Your task to perform on an android device: Go to Yahoo.com Image 0: 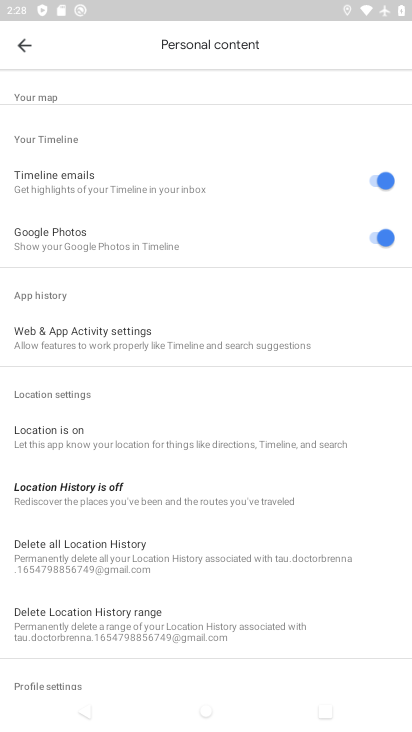
Step 0: press home button
Your task to perform on an android device: Go to Yahoo.com Image 1: 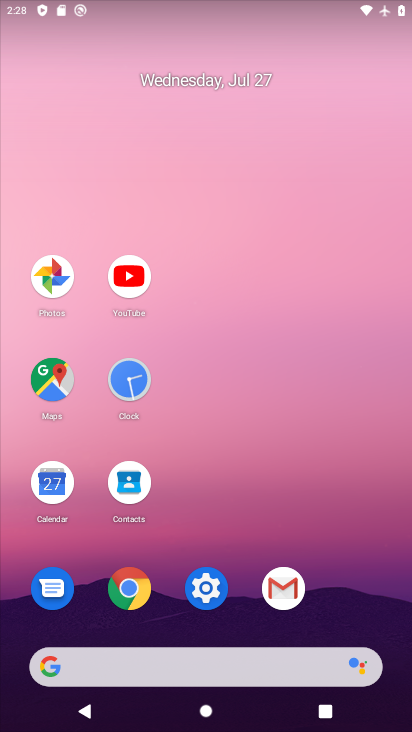
Step 1: click (129, 590)
Your task to perform on an android device: Go to Yahoo.com Image 2: 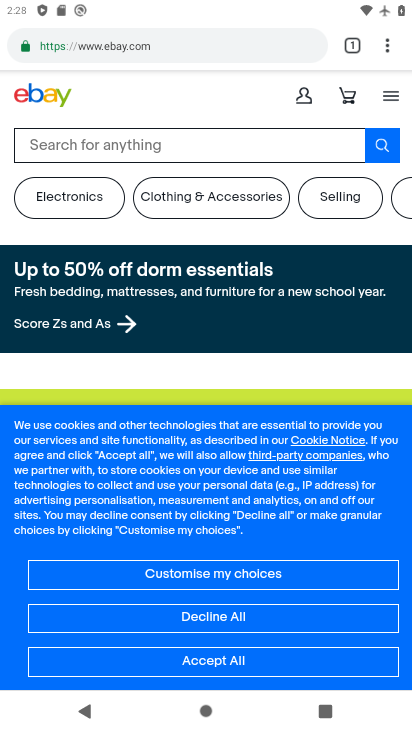
Step 2: click (387, 50)
Your task to perform on an android device: Go to Yahoo.com Image 3: 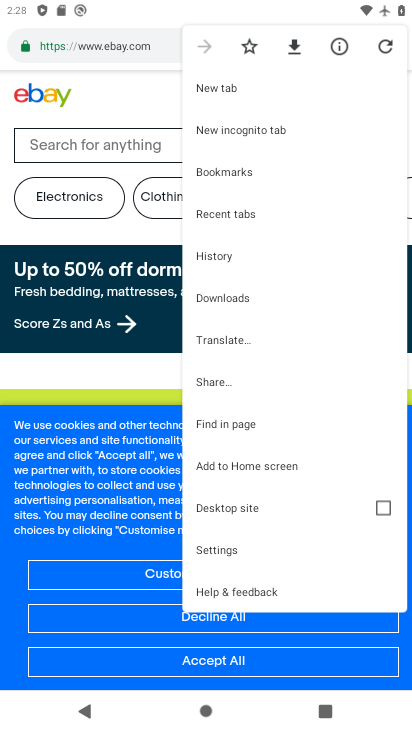
Step 3: click (237, 80)
Your task to perform on an android device: Go to Yahoo.com Image 4: 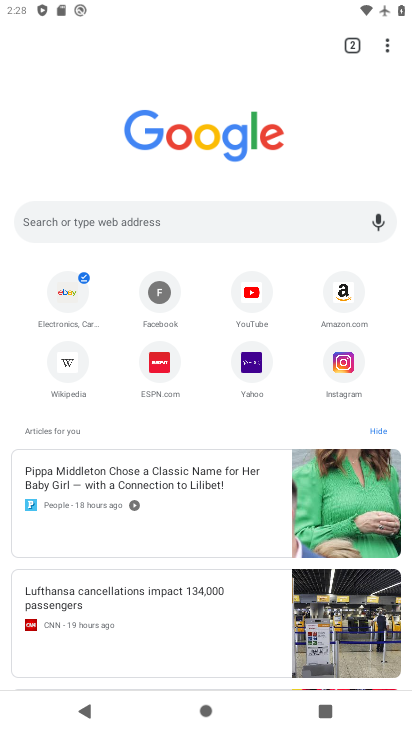
Step 4: click (258, 367)
Your task to perform on an android device: Go to Yahoo.com Image 5: 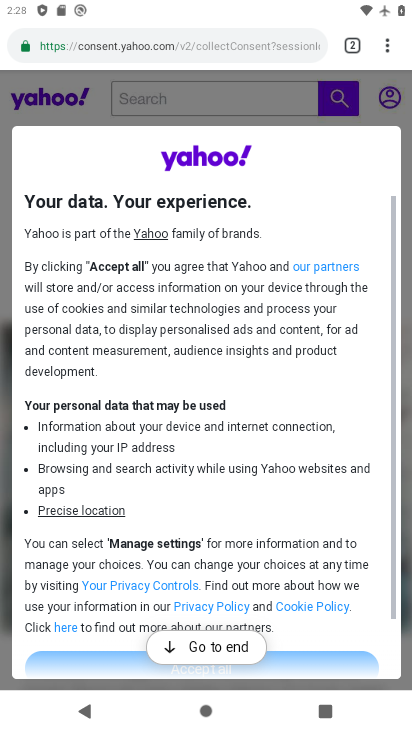
Step 5: click (227, 641)
Your task to perform on an android device: Go to Yahoo.com Image 6: 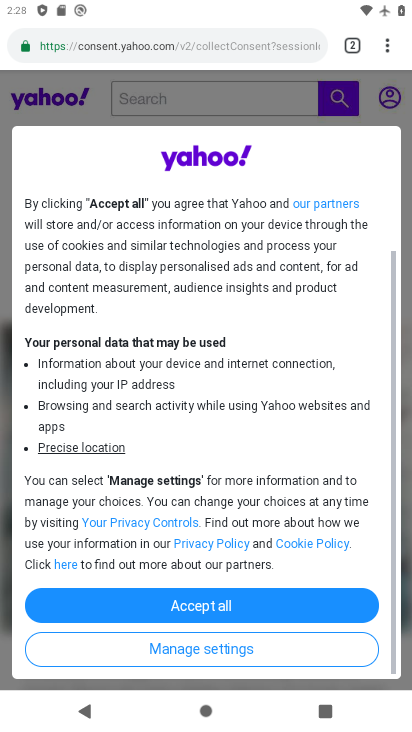
Step 6: click (216, 611)
Your task to perform on an android device: Go to Yahoo.com Image 7: 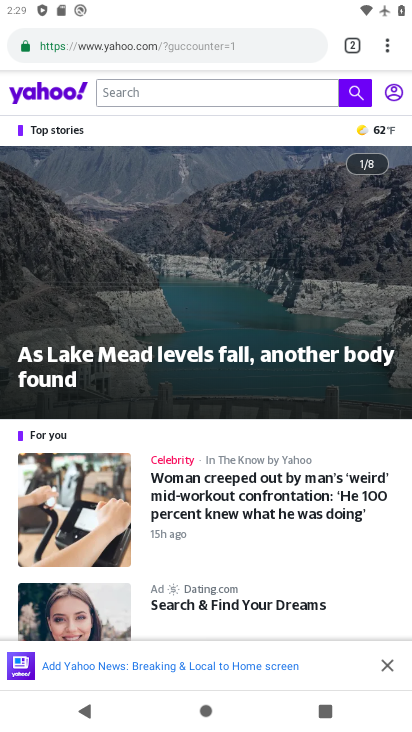
Step 7: task complete